Your task to perform on an android device: Empty the shopping cart on bestbuy. Search for logitech g pro on bestbuy, select the first entry, add it to the cart, then select checkout. Image 0: 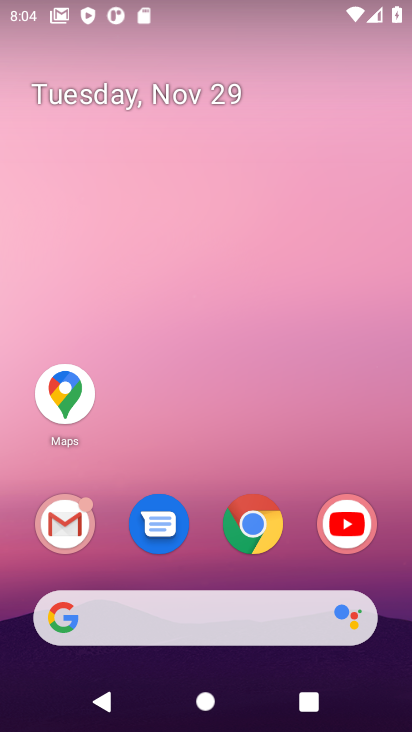
Step 0: click (256, 522)
Your task to perform on an android device: Empty the shopping cart on bestbuy. Search for logitech g pro on bestbuy, select the first entry, add it to the cart, then select checkout. Image 1: 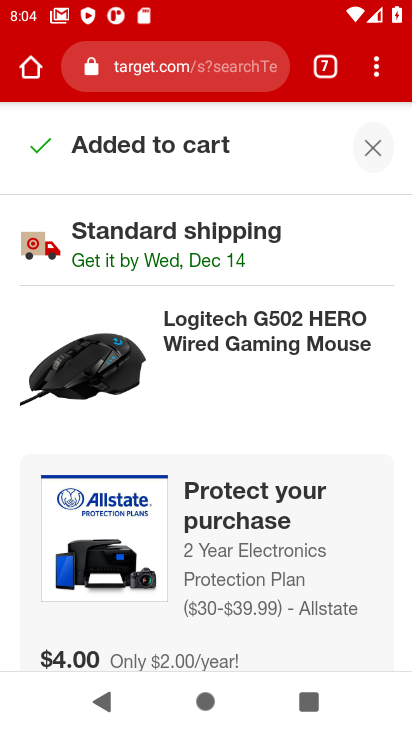
Step 1: click (161, 65)
Your task to perform on an android device: Empty the shopping cart on bestbuy. Search for logitech g pro on bestbuy, select the first entry, add it to the cart, then select checkout. Image 2: 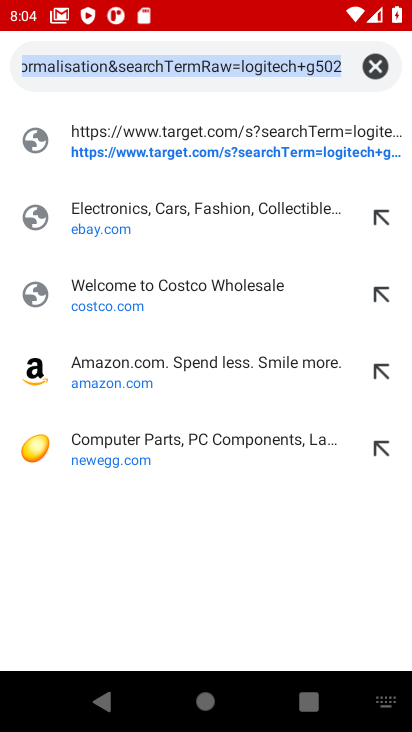
Step 2: type "bestbuy.com"
Your task to perform on an android device: Empty the shopping cart on bestbuy. Search for logitech g pro on bestbuy, select the first entry, add it to the cart, then select checkout. Image 3: 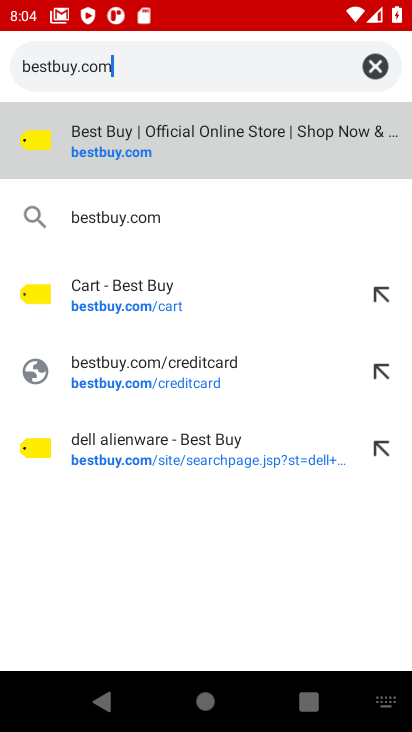
Step 3: click (119, 154)
Your task to perform on an android device: Empty the shopping cart on bestbuy. Search for logitech g pro on bestbuy, select the first entry, add it to the cart, then select checkout. Image 4: 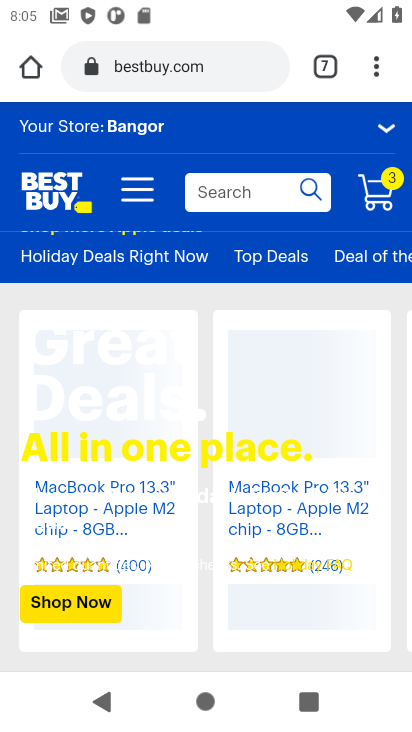
Step 4: click (383, 193)
Your task to perform on an android device: Empty the shopping cart on bestbuy. Search for logitech g pro on bestbuy, select the first entry, add it to the cart, then select checkout. Image 5: 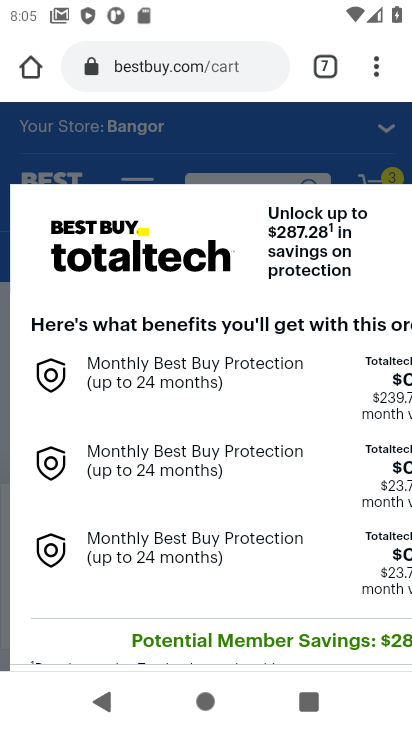
Step 5: click (234, 147)
Your task to perform on an android device: Empty the shopping cart on bestbuy. Search for logitech g pro on bestbuy, select the first entry, add it to the cart, then select checkout. Image 6: 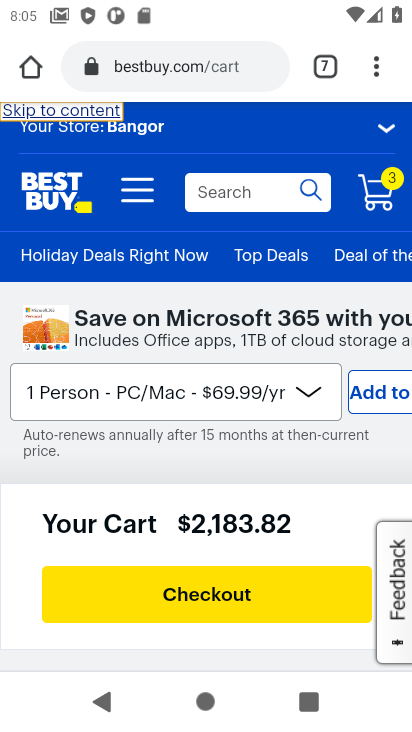
Step 6: drag from (217, 422) to (220, 70)
Your task to perform on an android device: Empty the shopping cart on bestbuy. Search for logitech g pro on bestbuy, select the first entry, add it to the cart, then select checkout. Image 7: 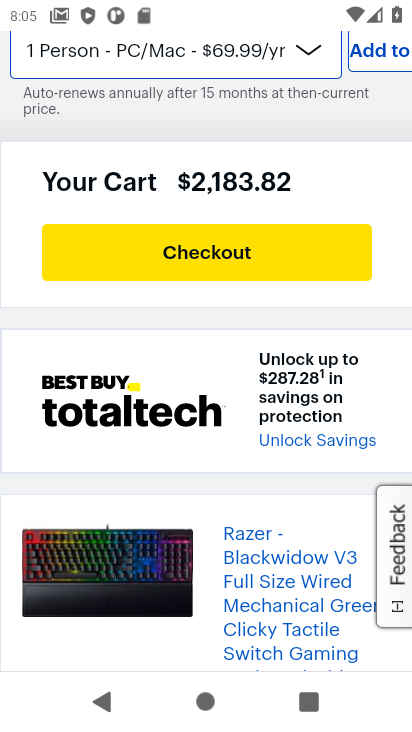
Step 7: drag from (218, 369) to (215, 109)
Your task to perform on an android device: Empty the shopping cart on bestbuy. Search for logitech g pro on bestbuy, select the first entry, add it to the cart, then select checkout. Image 8: 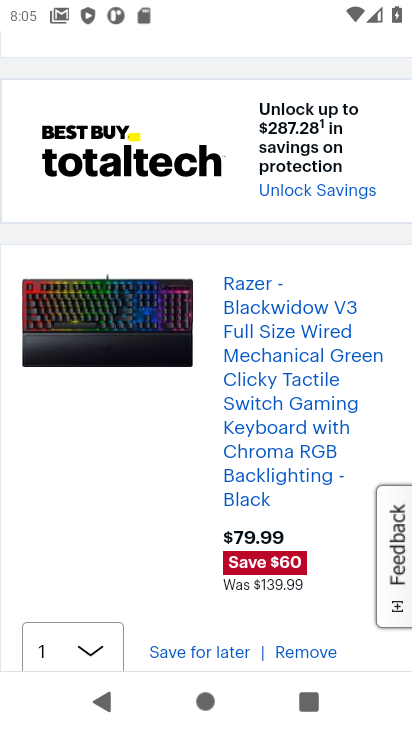
Step 8: drag from (212, 431) to (211, 197)
Your task to perform on an android device: Empty the shopping cart on bestbuy. Search for logitech g pro on bestbuy, select the first entry, add it to the cart, then select checkout. Image 9: 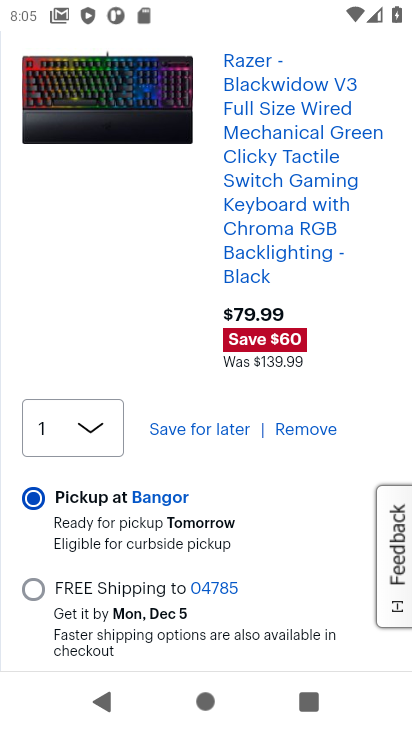
Step 9: click (292, 431)
Your task to perform on an android device: Empty the shopping cart on bestbuy. Search for logitech g pro on bestbuy, select the first entry, add it to the cart, then select checkout. Image 10: 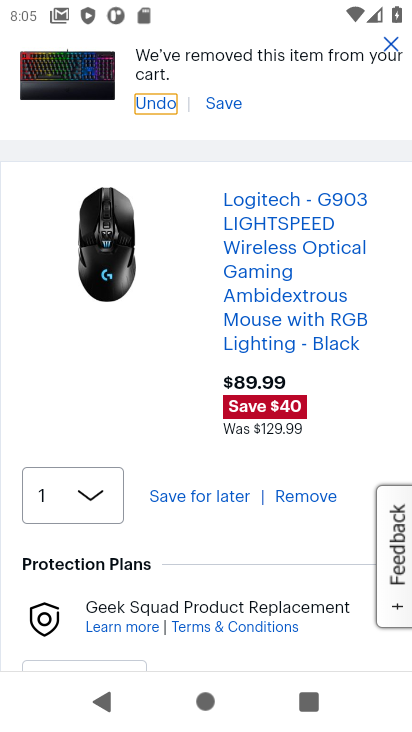
Step 10: click (287, 490)
Your task to perform on an android device: Empty the shopping cart on bestbuy. Search for logitech g pro on bestbuy, select the first entry, add it to the cart, then select checkout. Image 11: 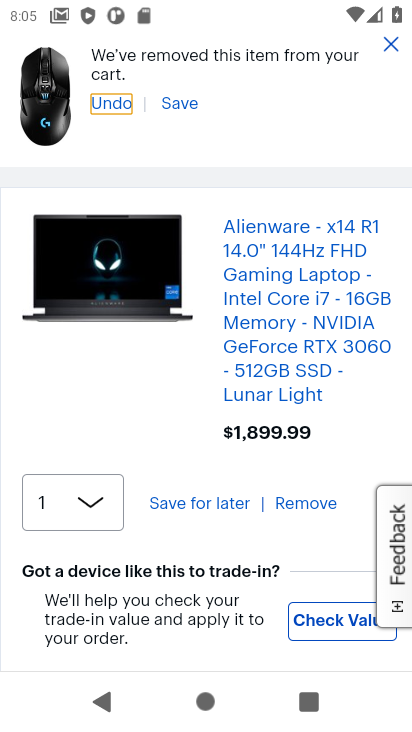
Step 11: click (290, 500)
Your task to perform on an android device: Empty the shopping cart on bestbuy. Search for logitech g pro on bestbuy, select the first entry, add it to the cart, then select checkout. Image 12: 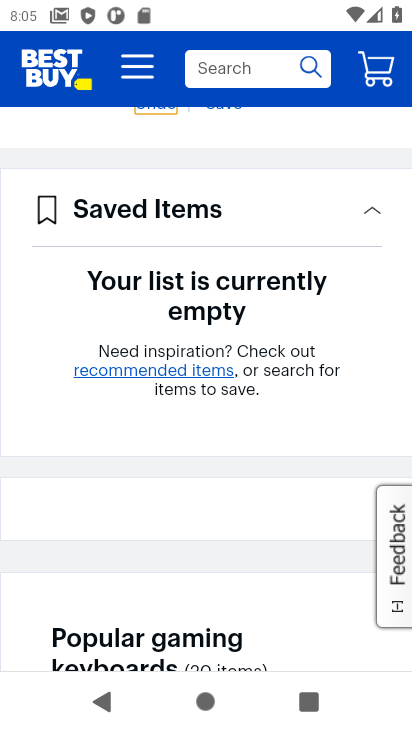
Step 12: drag from (310, 338) to (283, 469)
Your task to perform on an android device: Empty the shopping cart on bestbuy. Search for logitech g pro on bestbuy, select the first entry, add it to the cart, then select checkout. Image 13: 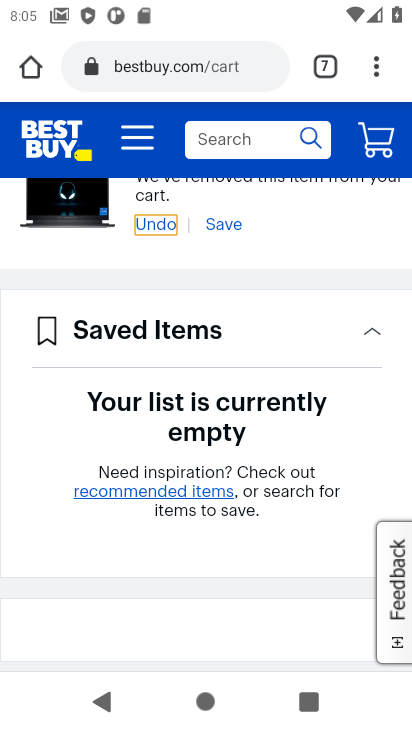
Step 13: drag from (241, 294) to (209, 514)
Your task to perform on an android device: Empty the shopping cart on bestbuy. Search for logitech g pro on bestbuy, select the first entry, add it to the cart, then select checkout. Image 14: 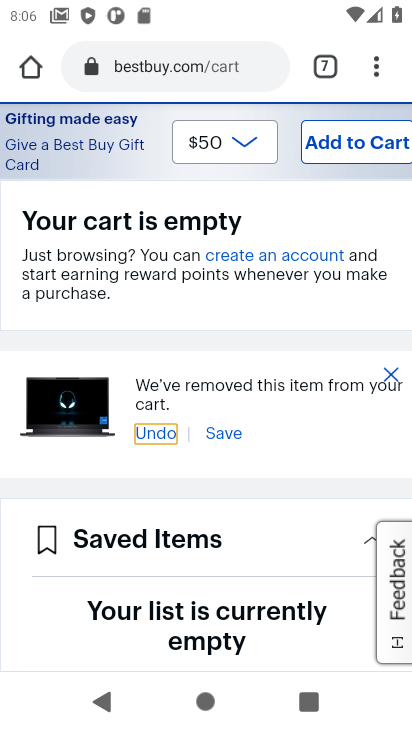
Step 14: drag from (233, 236) to (193, 537)
Your task to perform on an android device: Empty the shopping cart on bestbuy. Search for logitech g pro on bestbuy, select the first entry, add it to the cart, then select checkout. Image 15: 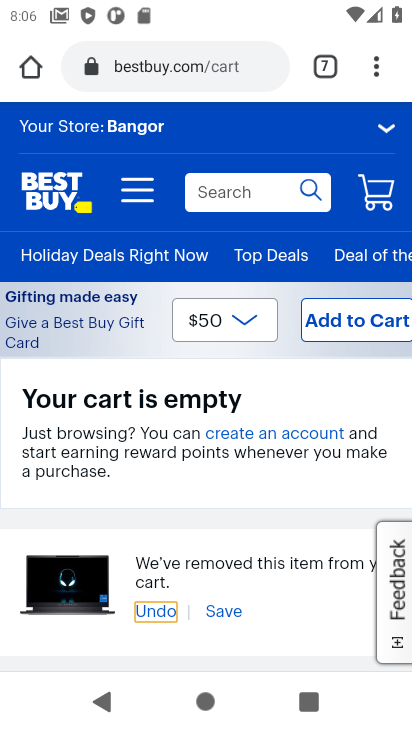
Step 15: click (204, 197)
Your task to perform on an android device: Empty the shopping cart on bestbuy. Search for logitech g pro on bestbuy, select the first entry, add it to the cart, then select checkout. Image 16: 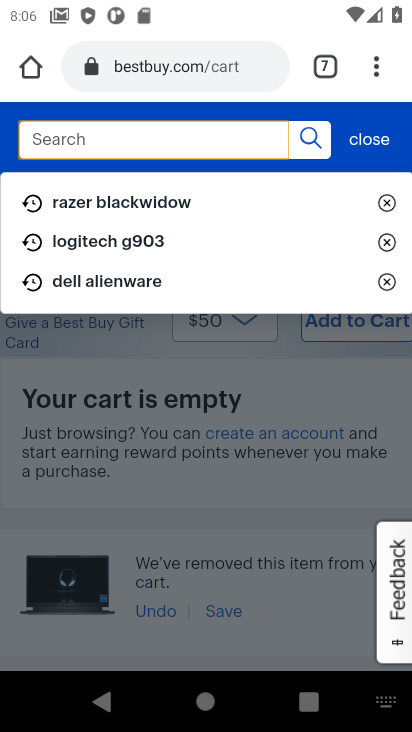
Step 16: type "logitech g pro"
Your task to perform on an android device: Empty the shopping cart on bestbuy. Search for logitech g pro on bestbuy, select the first entry, add it to the cart, then select checkout. Image 17: 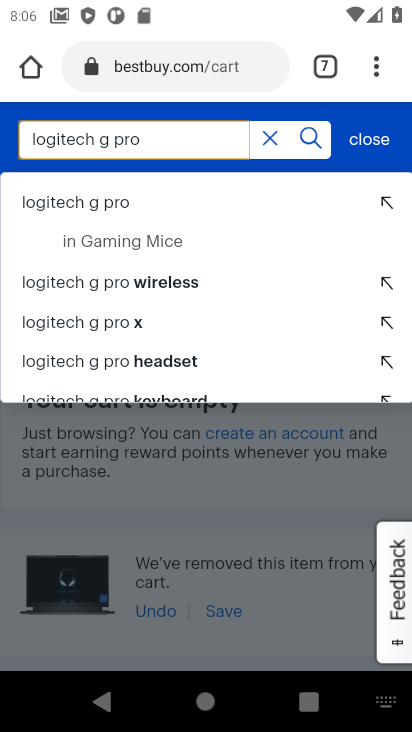
Step 17: click (88, 205)
Your task to perform on an android device: Empty the shopping cart on bestbuy. Search for logitech g pro on bestbuy, select the first entry, add it to the cart, then select checkout. Image 18: 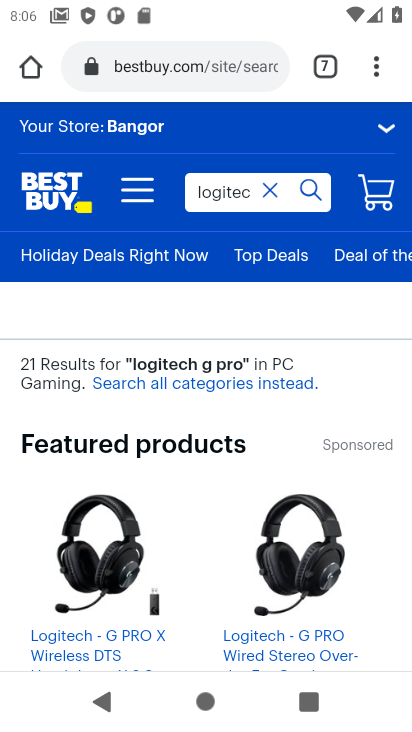
Step 18: drag from (180, 521) to (161, 265)
Your task to perform on an android device: Empty the shopping cart on bestbuy. Search for logitech g pro on bestbuy, select the first entry, add it to the cart, then select checkout. Image 19: 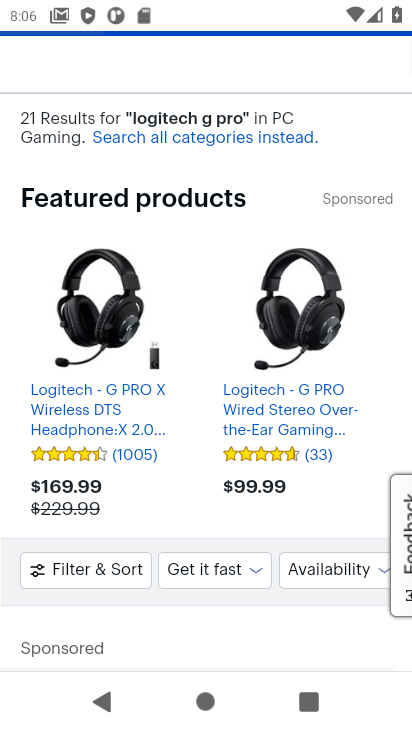
Step 19: drag from (192, 466) to (162, 139)
Your task to perform on an android device: Empty the shopping cart on bestbuy. Search for logitech g pro on bestbuy, select the first entry, add it to the cart, then select checkout. Image 20: 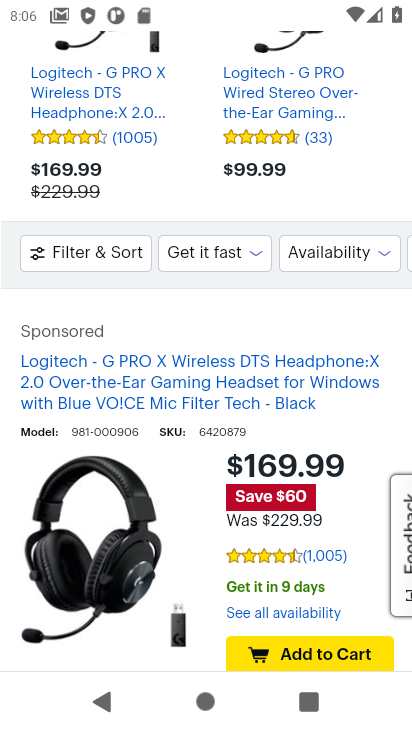
Step 20: drag from (156, 484) to (143, 246)
Your task to perform on an android device: Empty the shopping cart on bestbuy. Search for logitech g pro on bestbuy, select the first entry, add it to the cart, then select checkout. Image 21: 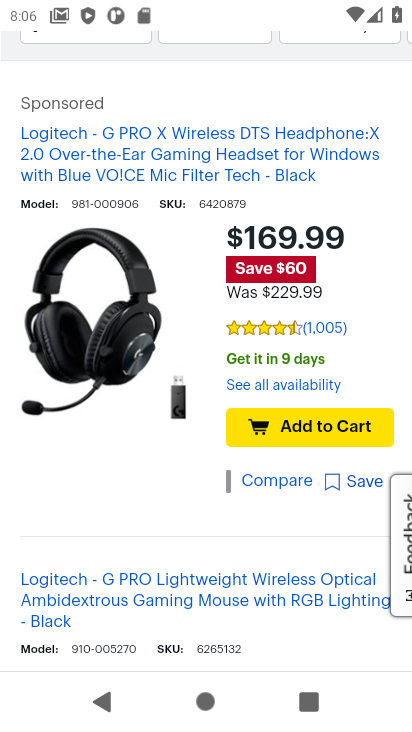
Step 21: click (294, 435)
Your task to perform on an android device: Empty the shopping cart on bestbuy. Search for logitech g pro on bestbuy, select the first entry, add it to the cart, then select checkout. Image 22: 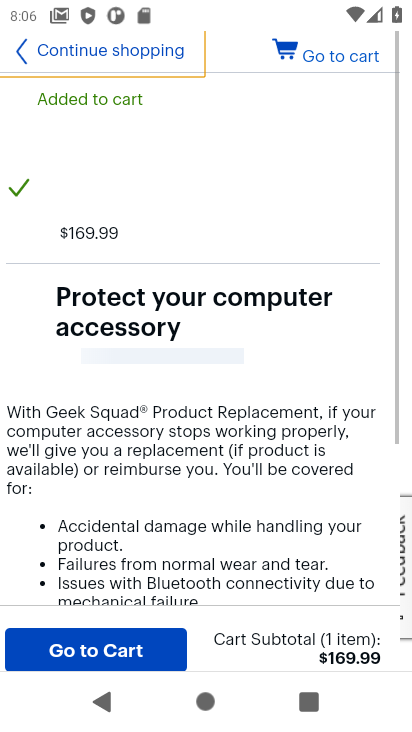
Step 22: click (333, 67)
Your task to perform on an android device: Empty the shopping cart on bestbuy. Search for logitech g pro on bestbuy, select the first entry, add it to the cart, then select checkout. Image 23: 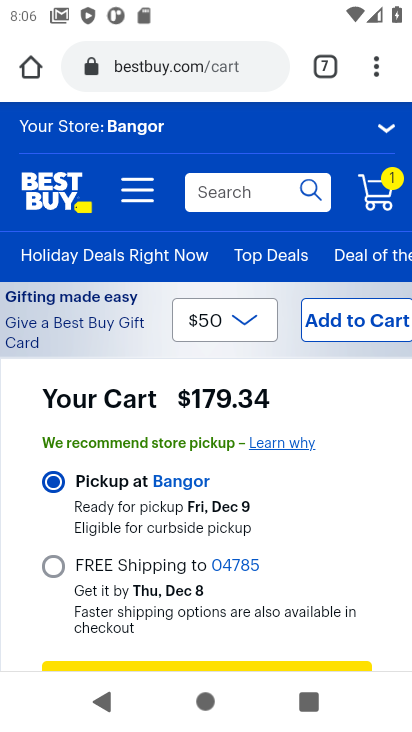
Step 23: drag from (230, 596) to (230, 311)
Your task to perform on an android device: Empty the shopping cart on bestbuy. Search for logitech g pro on bestbuy, select the first entry, add it to the cart, then select checkout. Image 24: 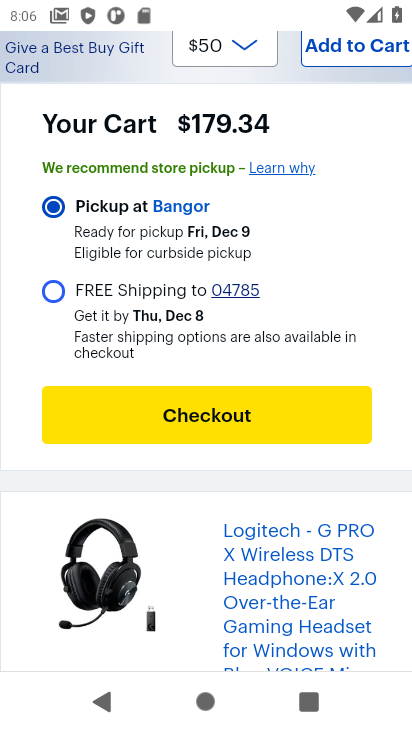
Step 24: click (207, 410)
Your task to perform on an android device: Empty the shopping cart on bestbuy. Search for logitech g pro on bestbuy, select the first entry, add it to the cart, then select checkout. Image 25: 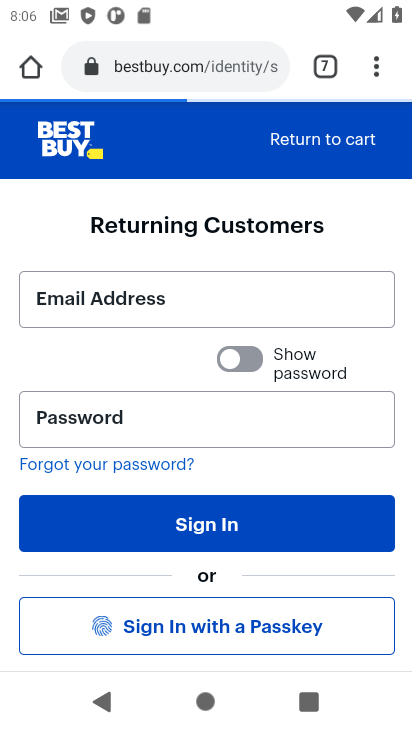
Step 25: task complete